Your task to perform on an android device: Open accessibility settings Image 0: 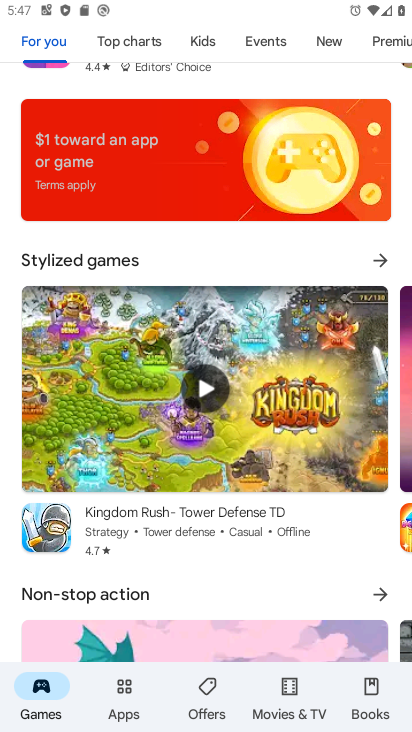
Step 0: press home button
Your task to perform on an android device: Open accessibility settings Image 1: 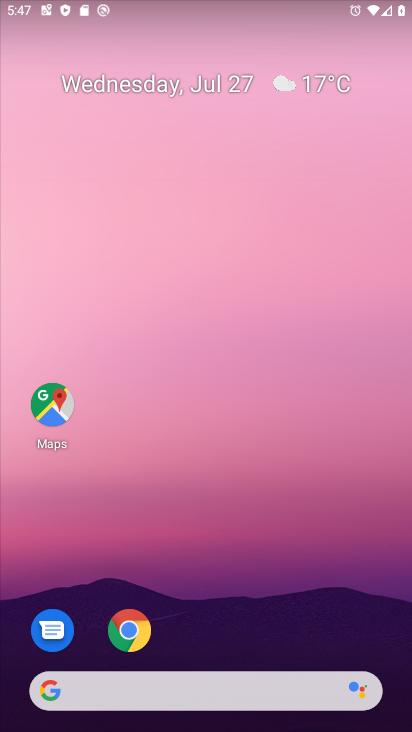
Step 1: drag from (220, 657) to (259, 32)
Your task to perform on an android device: Open accessibility settings Image 2: 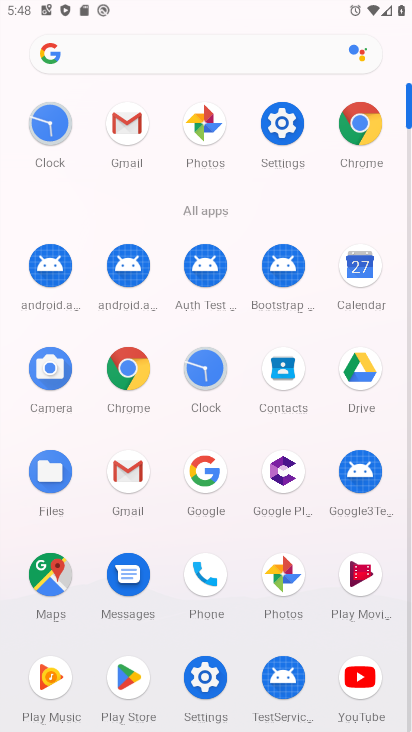
Step 2: click (282, 116)
Your task to perform on an android device: Open accessibility settings Image 3: 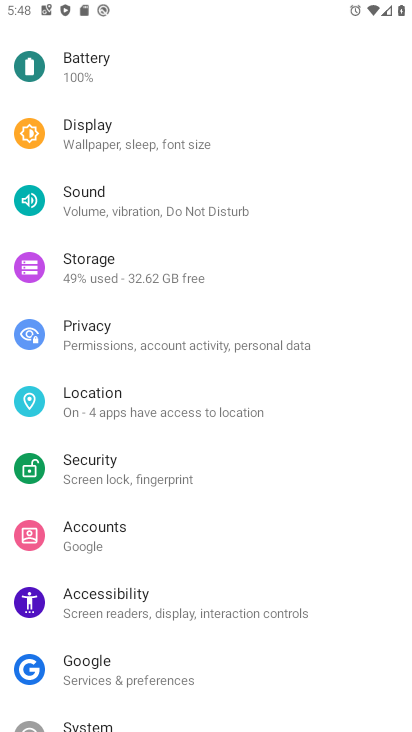
Step 3: click (156, 599)
Your task to perform on an android device: Open accessibility settings Image 4: 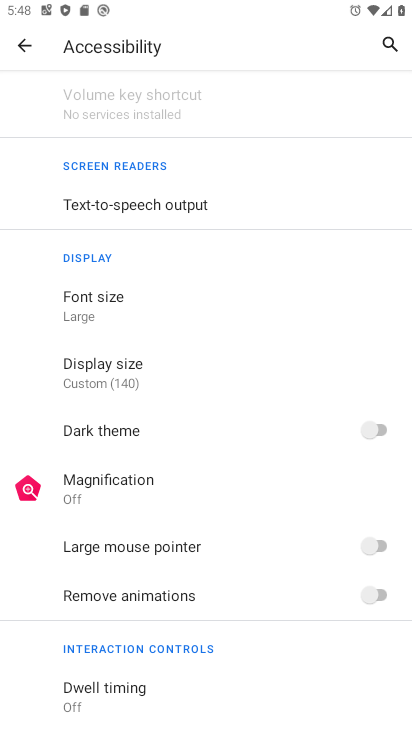
Step 4: task complete